Your task to perform on an android device: turn smart compose on in the gmail app Image 0: 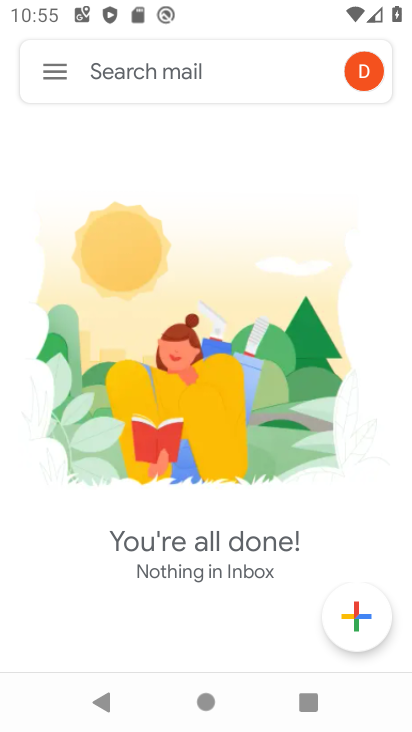
Step 0: click (69, 67)
Your task to perform on an android device: turn smart compose on in the gmail app Image 1: 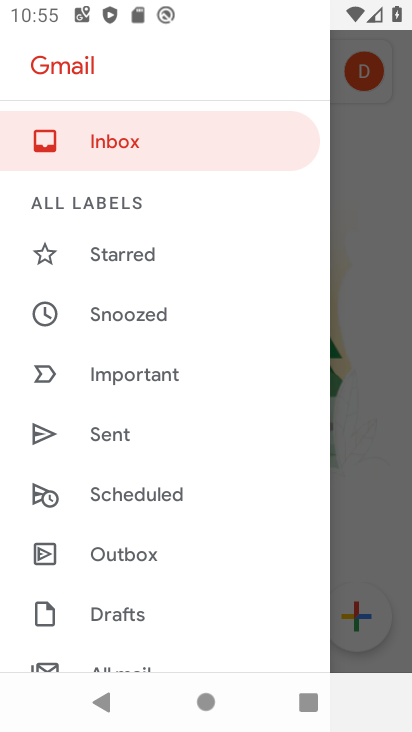
Step 1: drag from (193, 595) to (188, 148)
Your task to perform on an android device: turn smart compose on in the gmail app Image 2: 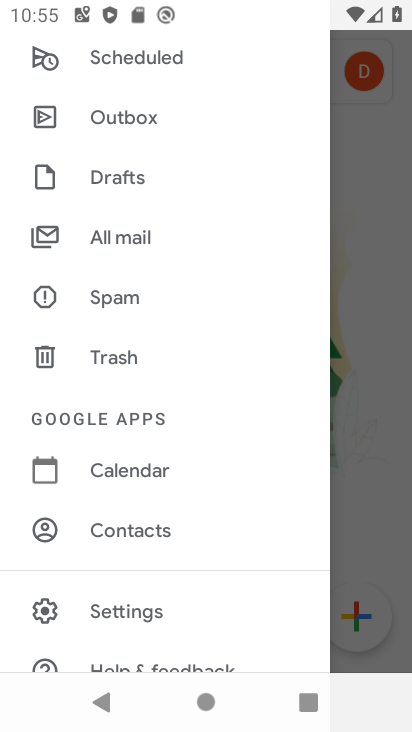
Step 2: click (167, 617)
Your task to perform on an android device: turn smart compose on in the gmail app Image 3: 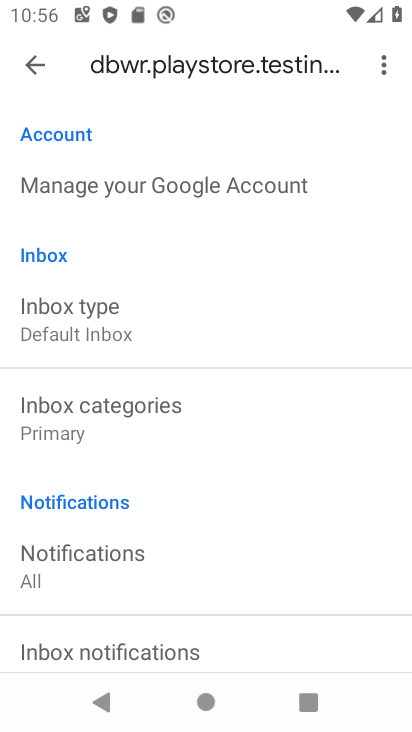
Step 3: task complete